Your task to perform on an android device: Open accessibility settings Image 0: 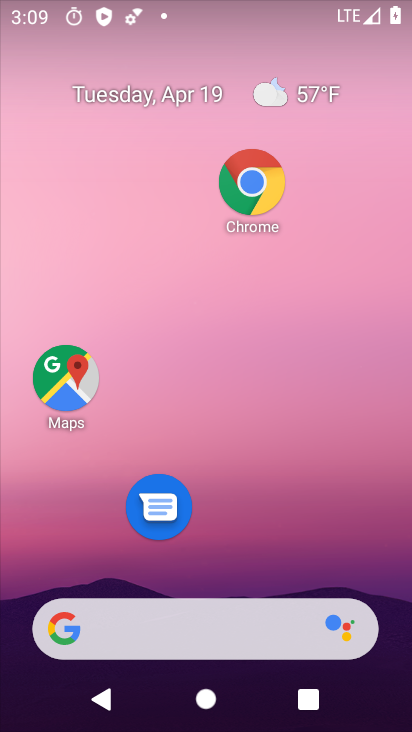
Step 0: drag from (282, 559) to (227, 30)
Your task to perform on an android device: Open accessibility settings Image 1: 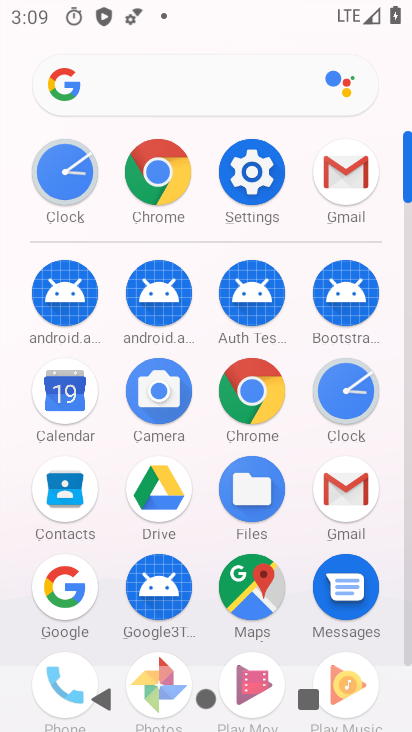
Step 1: click (266, 176)
Your task to perform on an android device: Open accessibility settings Image 2: 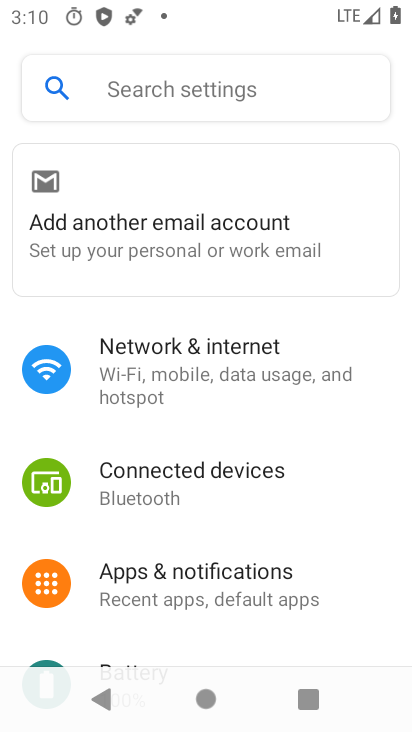
Step 2: drag from (255, 549) to (296, 71)
Your task to perform on an android device: Open accessibility settings Image 3: 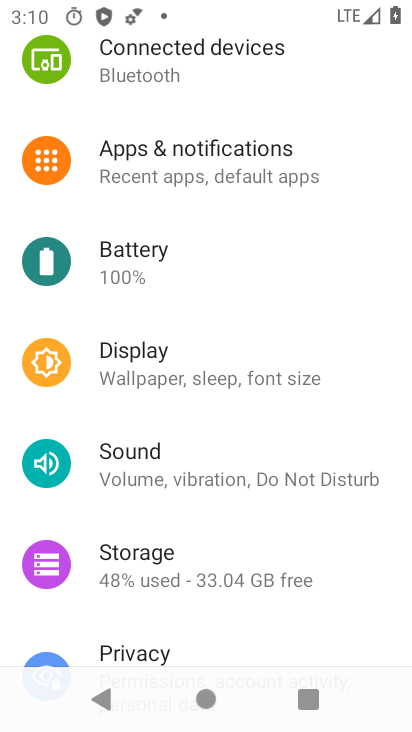
Step 3: drag from (234, 503) to (280, 126)
Your task to perform on an android device: Open accessibility settings Image 4: 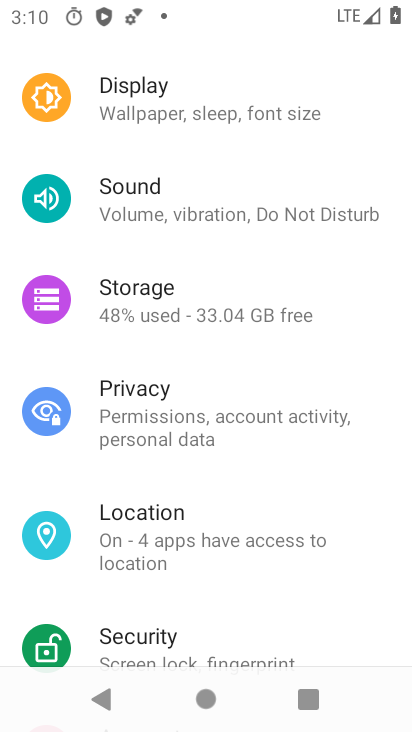
Step 4: drag from (259, 526) to (273, 183)
Your task to perform on an android device: Open accessibility settings Image 5: 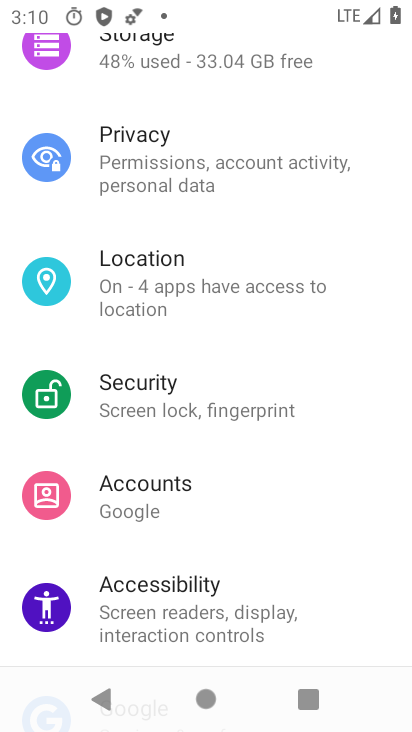
Step 5: drag from (224, 440) to (267, 154)
Your task to perform on an android device: Open accessibility settings Image 6: 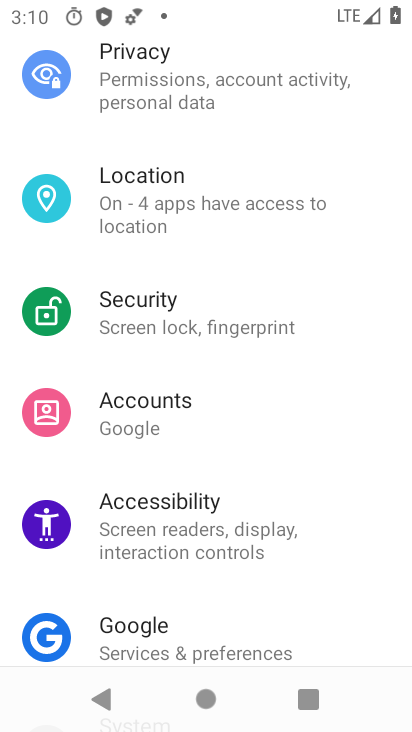
Step 6: drag from (226, 521) to (256, 251)
Your task to perform on an android device: Open accessibility settings Image 7: 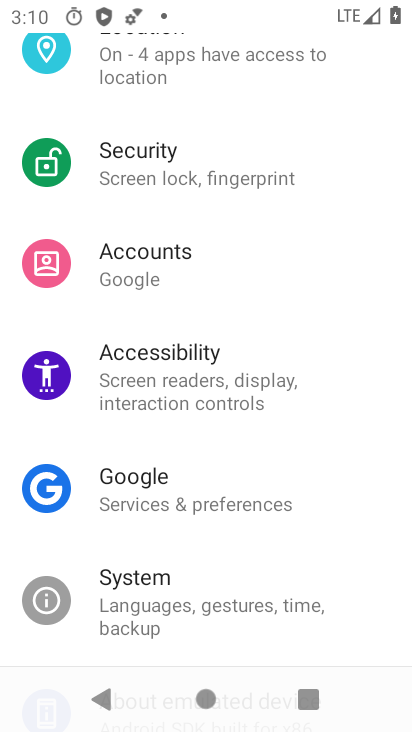
Step 7: click (239, 396)
Your task to perform on an android device: Open accessibility settings Image 8: 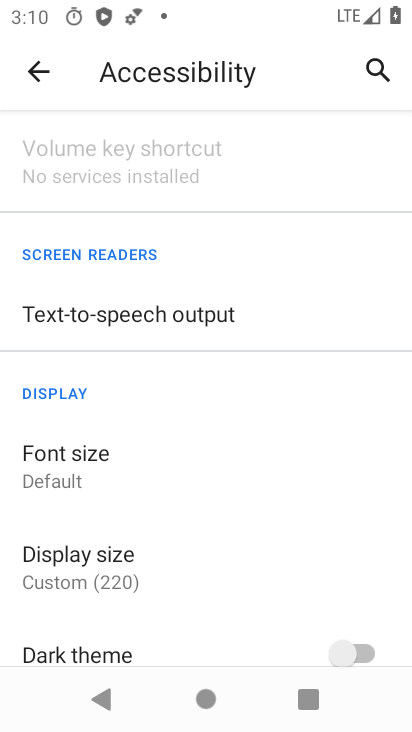
Step 8: task complete